Your task to perform on an android device: Go to Maps Image 0: 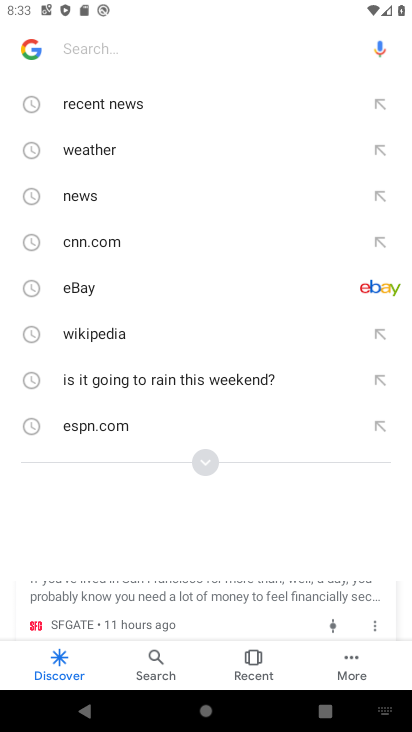
Step 0: press home button
Your task to perform on an android device: Go to Maps Image 1: 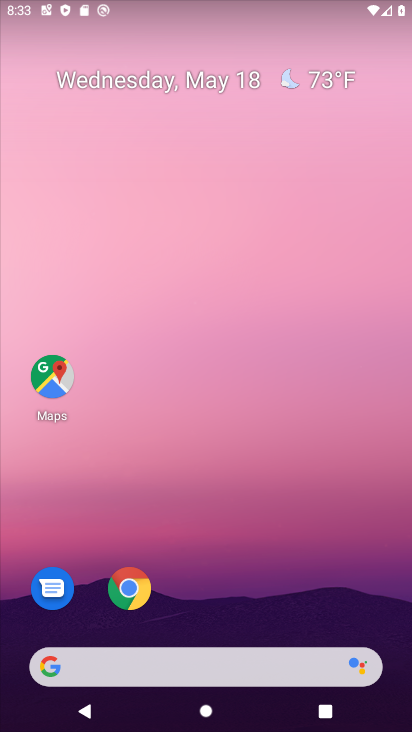
Step 1: drag from (392, 616) to (386, 141)
Your task to perform on an android device: Go to Maps Image 2: 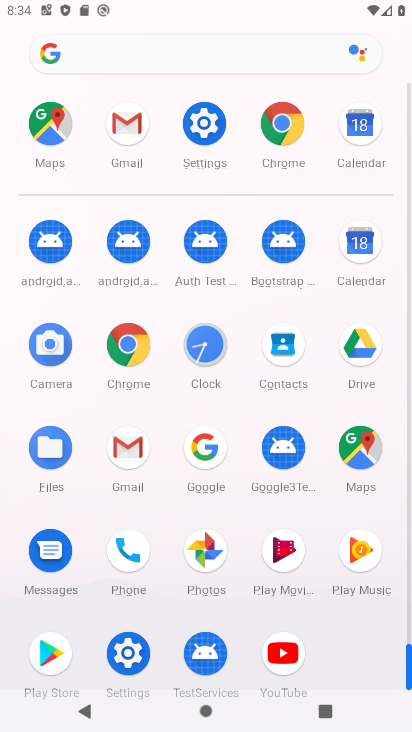
Step 2: click (359, 456)
Your task to perform on an android device: Go to Maps Image 3: 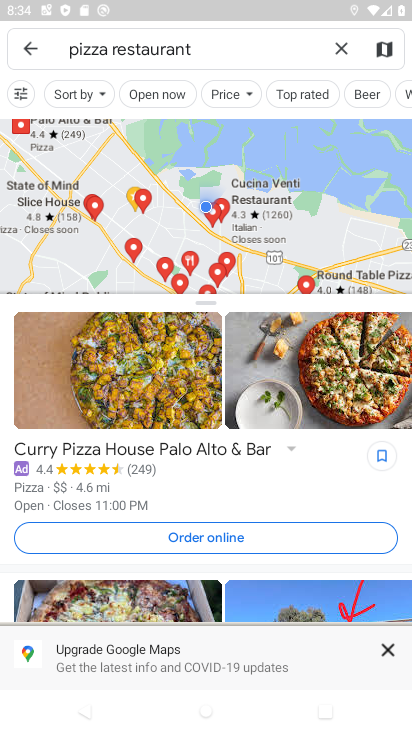
Step 3: task complete